Your task to perform on an android device: turn smart compose on in the gmail app Image 0: 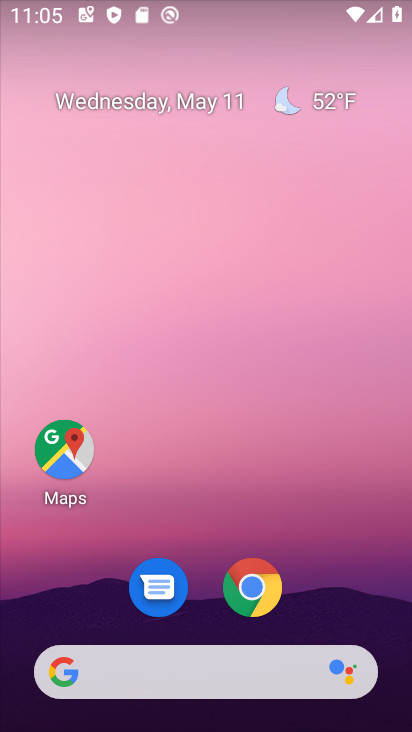
Step 0: drag from (221, 709) to (268, 164)
Your task to perform on an android device: turn smart compose on in the gmail app Image 1: 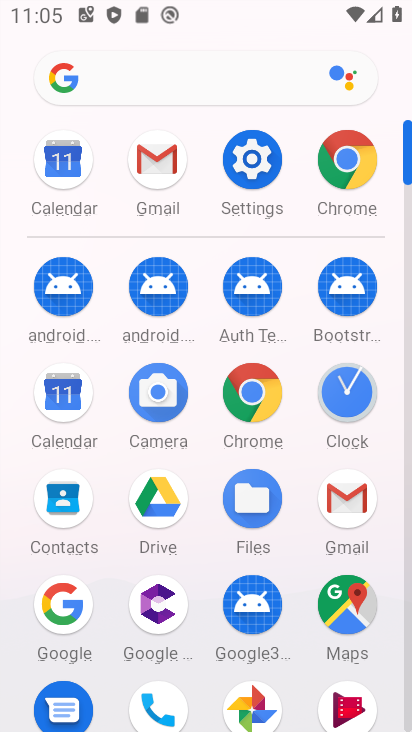
Step 1: click (156, 178)
Your task to perform on an android device: turn smart compose on in the gmail app Image 2: 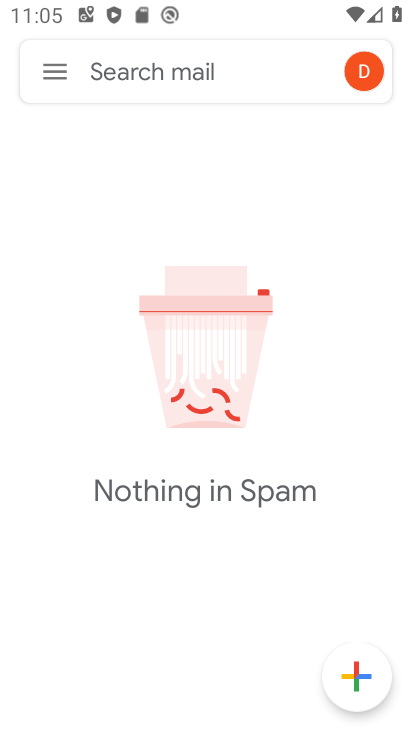
Step 2: click (43, 79)
Your task to perform on an android device: turn smart compose on in the gmail app Image 3: 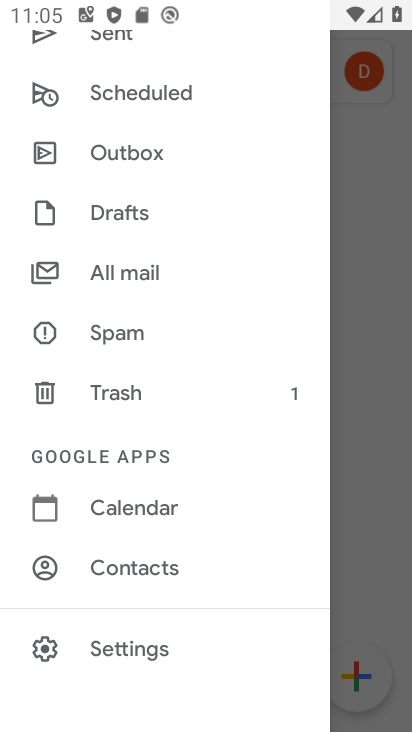
Step 3: click (116, 653)
Your task to perform on an android device: turn smart compose on in the gmail app Image 4: 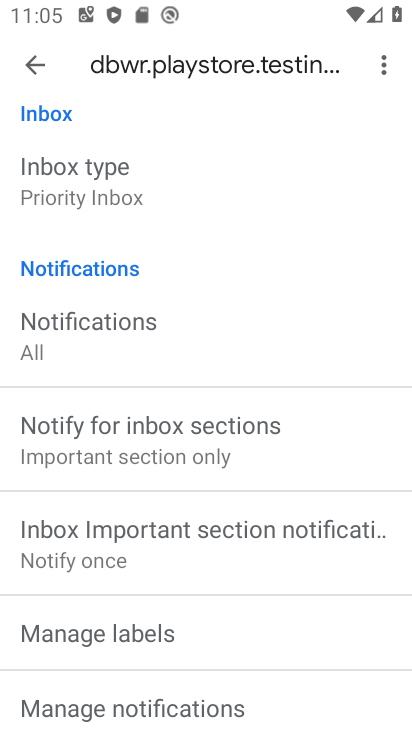
Step 4: drag from (163, 648) to (183, 440)
Your task to perform on an android device: turn smart compose on in the gmail app Image 5: 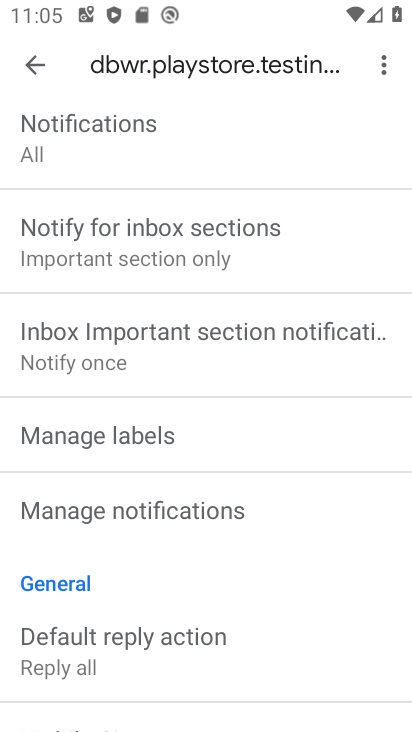
Step 5: drag from (119, 654) to (153, 425)
Your task to perform on an android device: turn smart compose on in the gmail app Image 6: 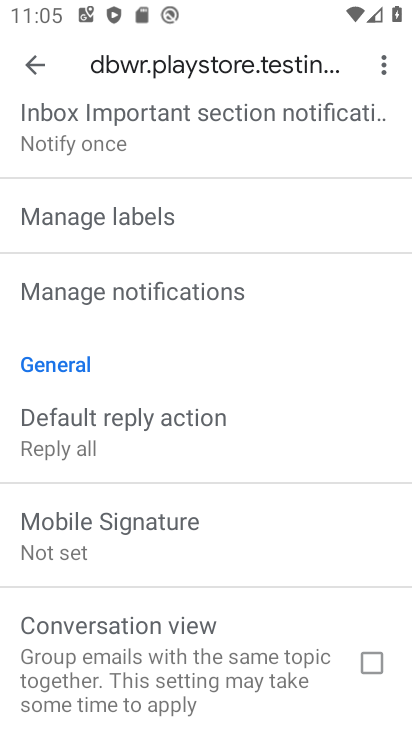
Step 6: drag from (183, 611) to (178, 374)
Your task to perform on an android device: turn smart compose on in the gmail app Image 7: 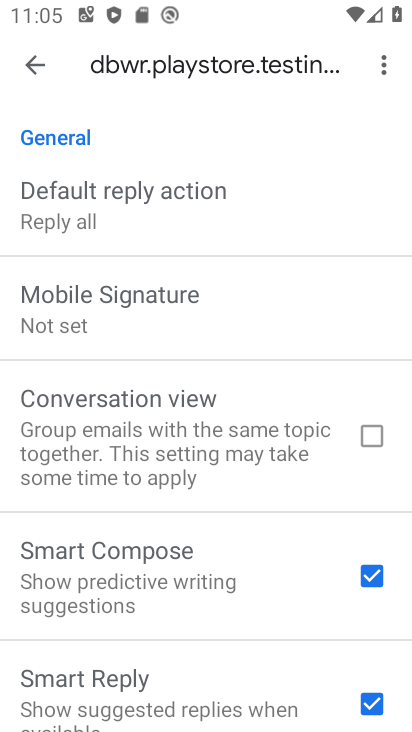
Step 7: click (273, 587)
Your task to perform on an android device: turn smart compose on in the gmail app Image 8: 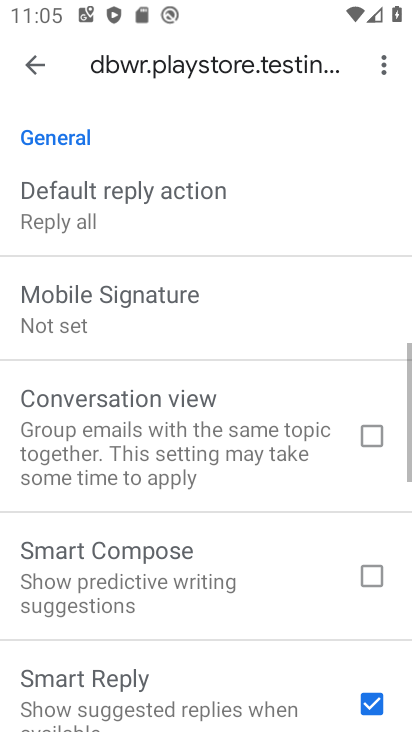
Step 8: click (271, 588)
Your task to perform on an android device: turn smart compose on in the gmail app Image 9: 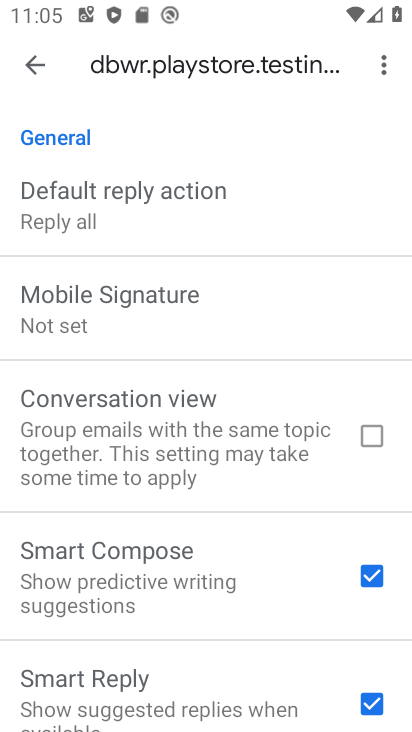
Step 9: task complete